Your task to perform on an android device: read, delete, or share a saved page in the chrome app Image 0: 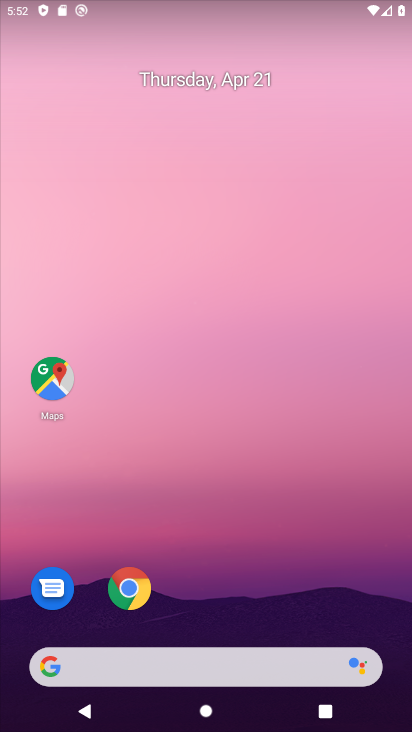
Step 0: click (319, 125)
Your task to perform on an android device: read, delete, or share a saved page in the chrome app Image 1: 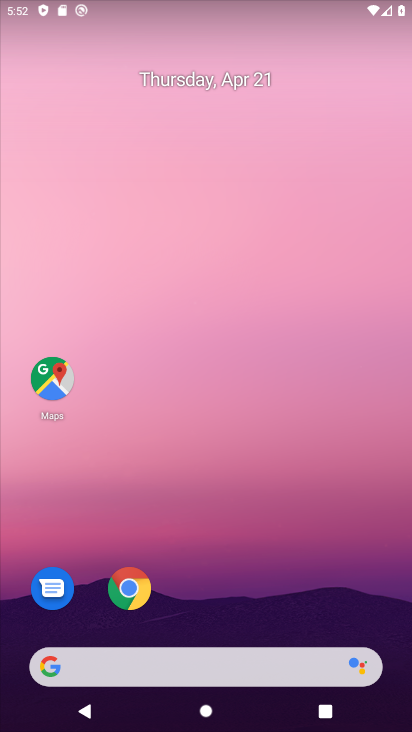
Step 1: click (132, 601)
Your task to perform on an android device: read, delete, or share a saved page in the chrome app Image 2: 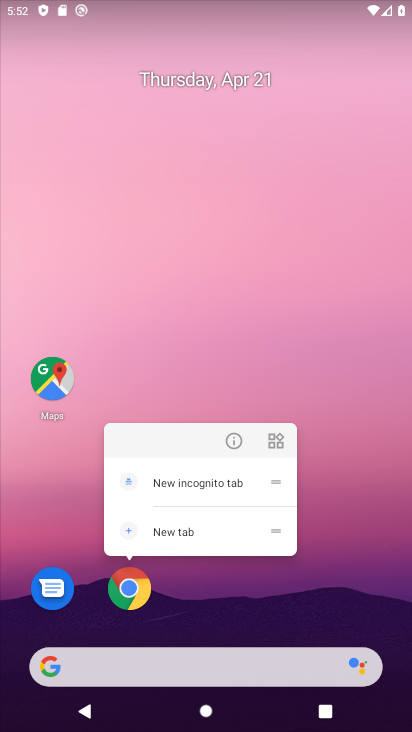
Step 2: click (133, 580)
Your task to perform on an android device: read, delete, or share a saved page in the chrome app Image 3: 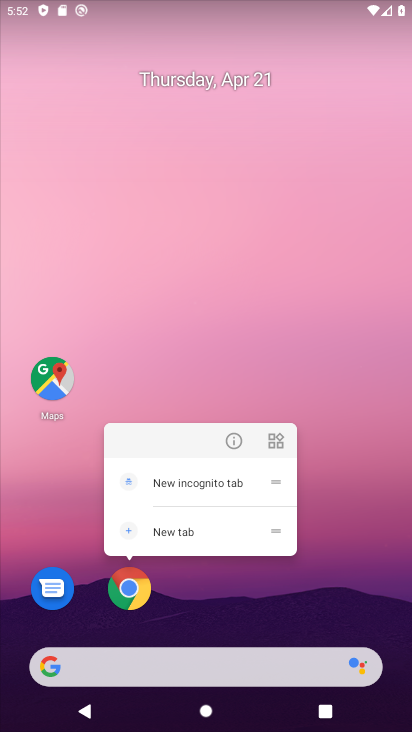
Step 3: click (125, 598)
Your task to perform on an android device: read, delete, or share a saved page in the chrome app Image 4: 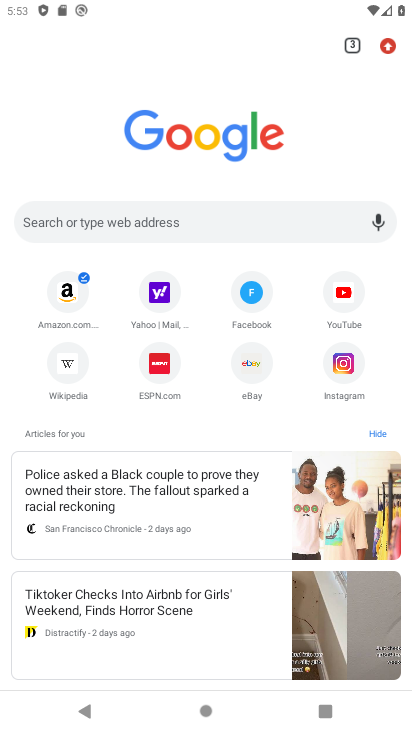
Step 4: task complete